Your task to perform on an android device: Search for the best movies of 2019  Image 0: 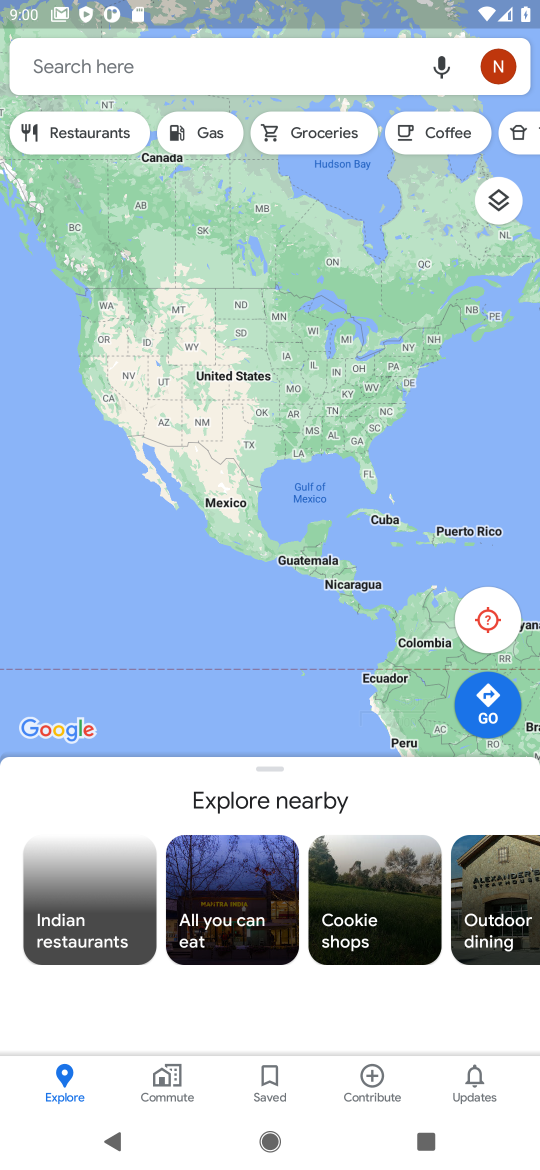
Step 0: press home button
Your task to perform on an android device: Search for the best movies of 2019  Image 1: 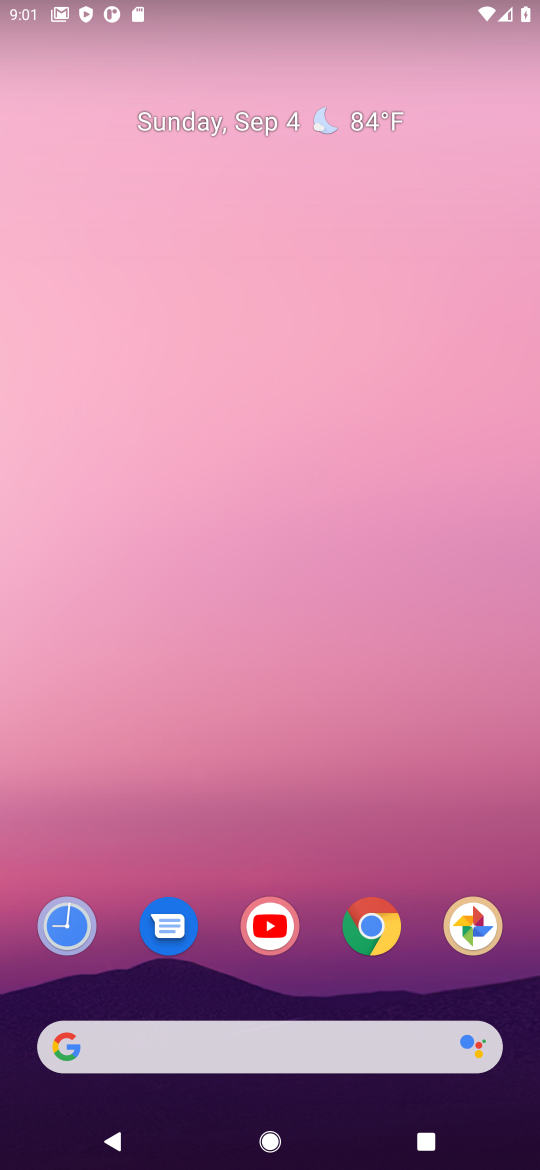
Step 1: click (234, 1042)
Your task to perform on an android device: Search for the best movies of 2019  Image 2: 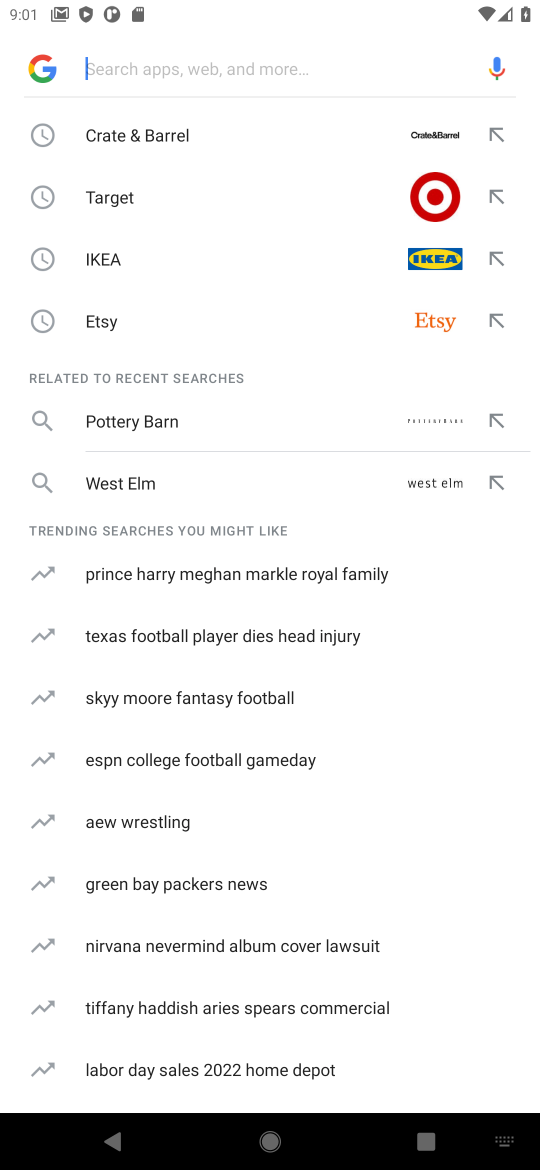
Step 2: type "best movies of 2019"
Your task to perform on an android device: Search for the best movies of 2019  Image 3: 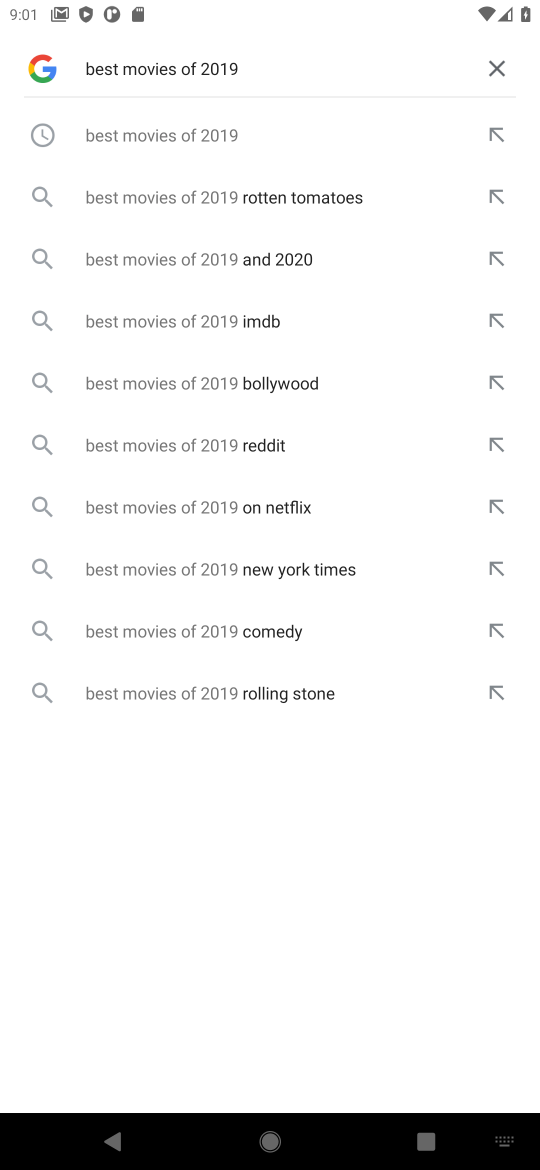
Step 3: click (191, 133)
Your task to perform on an android device: Search for the best movies of 2019  Image 4: 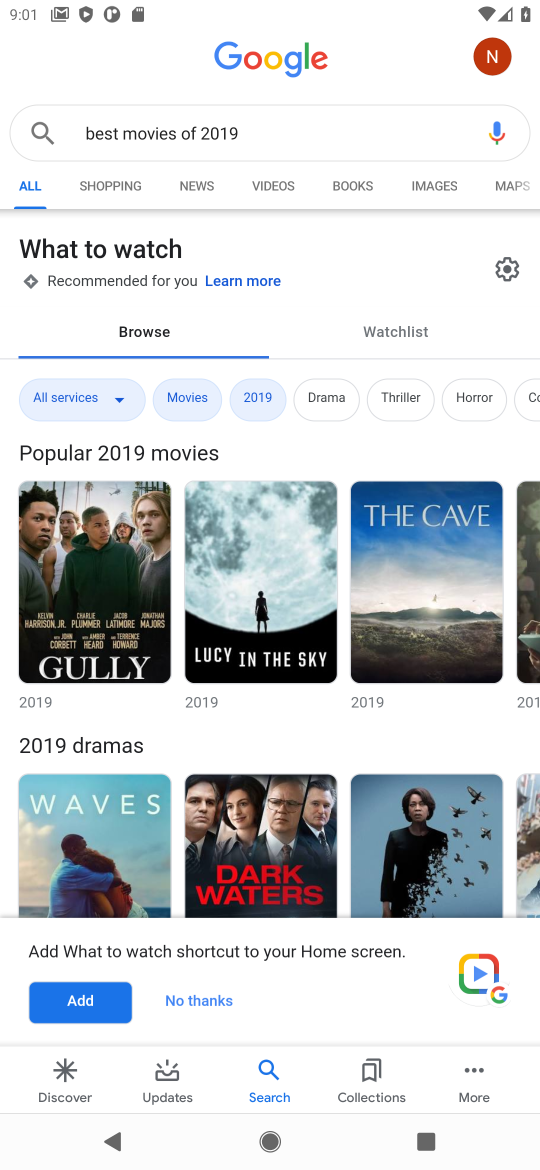
Step 4: task complete